Your task to perform on an android device: show emergency info Image 0: 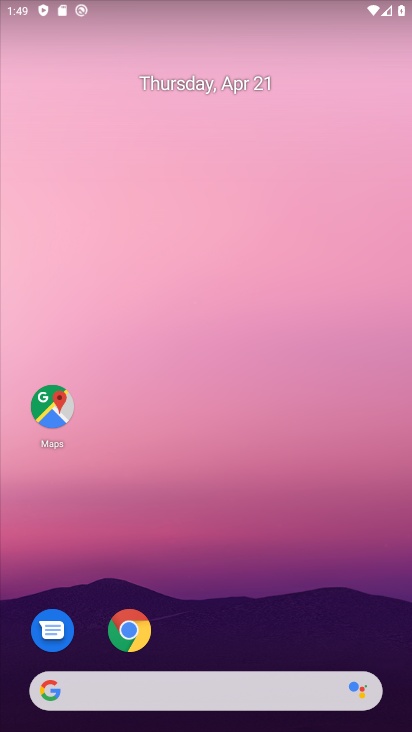
Step 0: drag from (278, 630) to (277, 253)
Your task to perform on an android device: show emergency info Image 1: 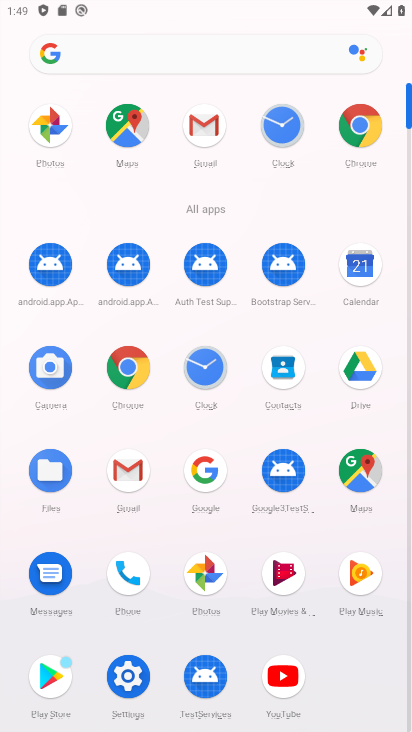
Step 1: click (181, 59)
Your task to perform on an android device: show emergency info Image 2: 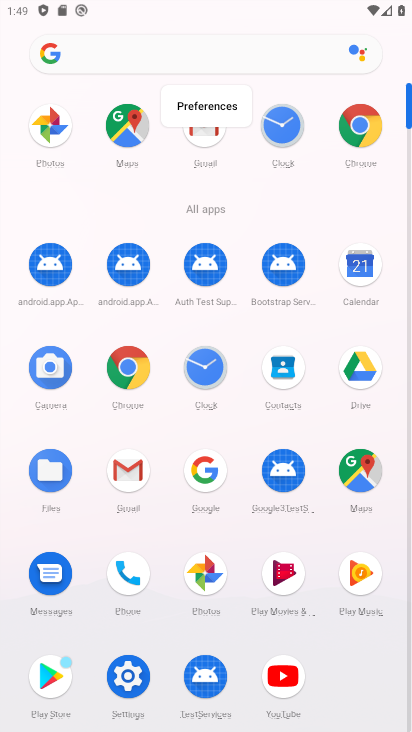
Step 2: click (124, 673)
Your task to perform on an android device: show emergency info Image 3: 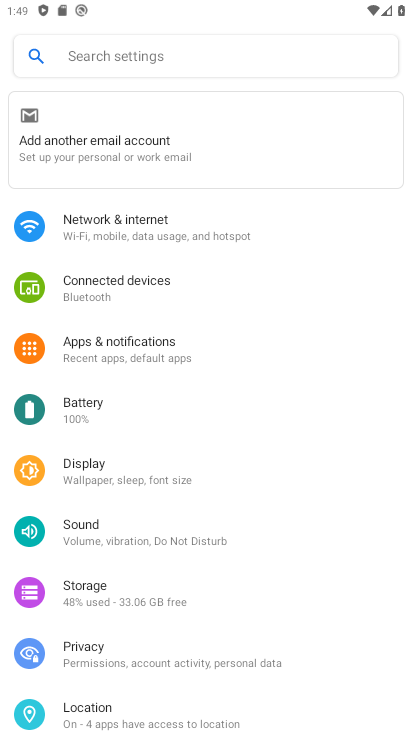
Step 3: click (186, 64)
Your task to perform on an android device: show emergency info Image 4: 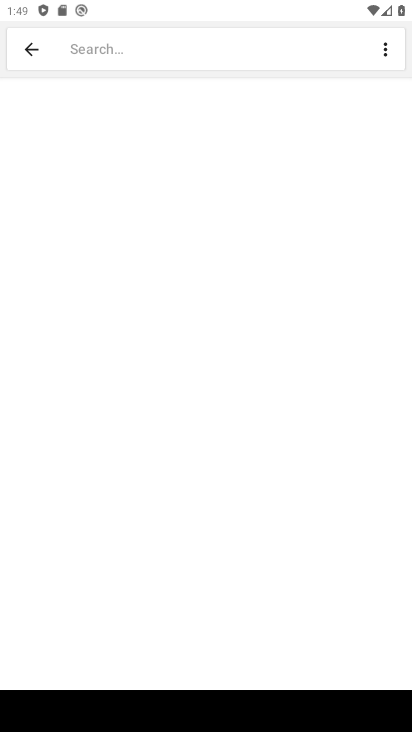
Step 4: type "emergency info"
Your task to perform on an android device: show emergency info Image 5: 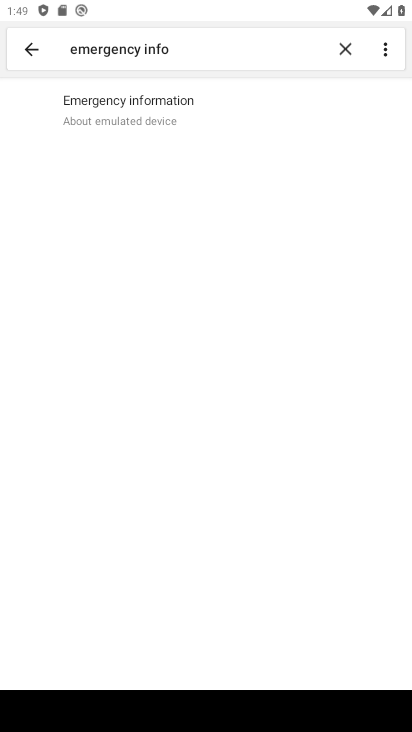
Step 5: click (167, 120)
Your task to perform on an android device: show emergency info Image 6: 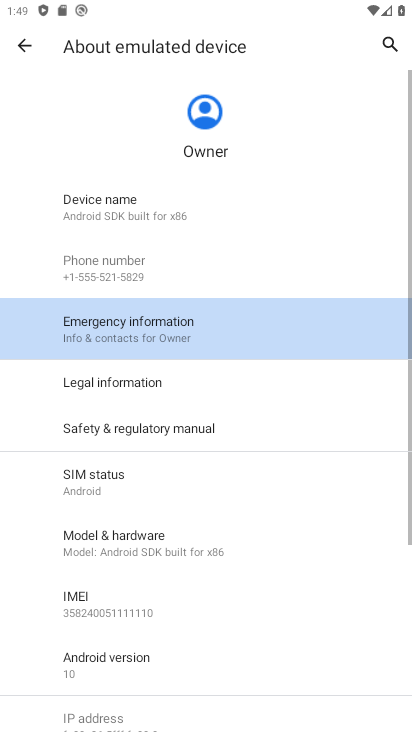
Step 6: click (167, 329)
Your task to perform on an android device: show emergency info Image 7: 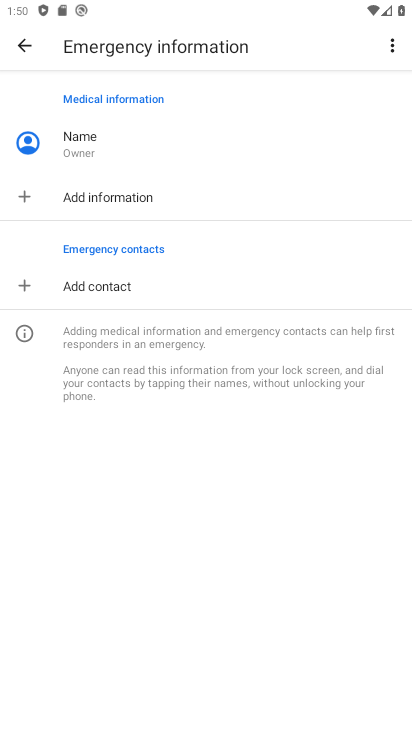
Step 7: task complete